Your task to perform on an android device: Open accessibility settings Image 0: 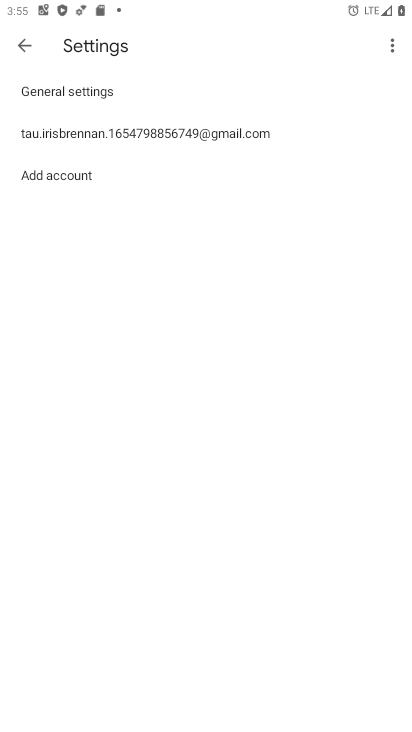
Step 0: press home button
Your task to perform on an android device: Open accessibility settings Image 1: 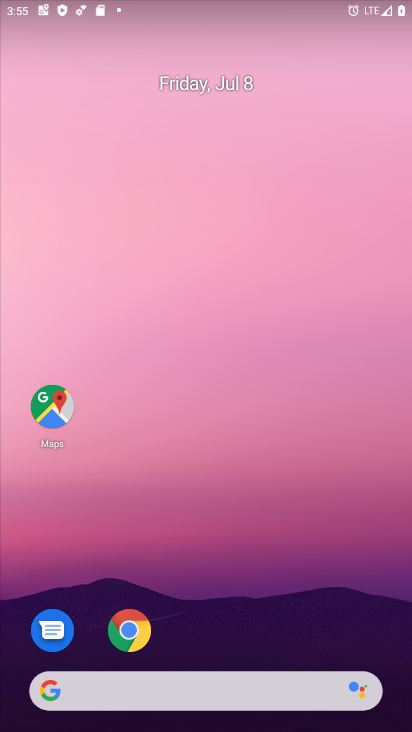
Step 1: drag from (207, 657) to (242, 334)
Your task to perform on an android device: Open accessibility settings Image 2: 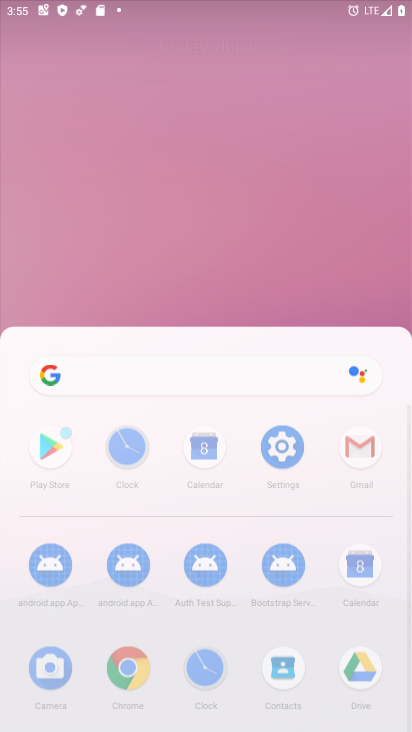
Step 2: drag from (249, 301) to (260, 121)
Your task to perform on an android device: Open accessibility settings Image 3: 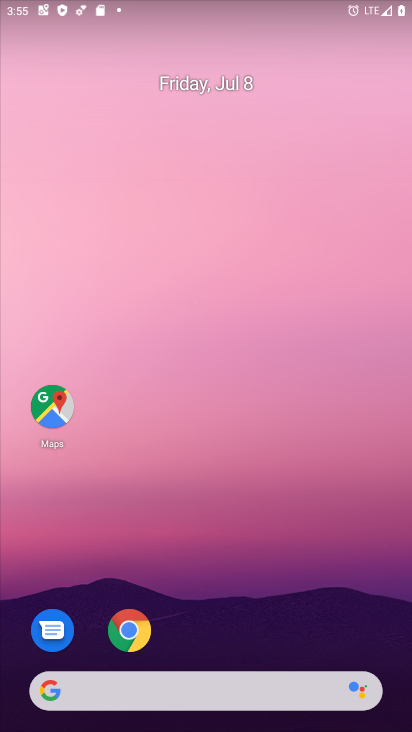
Step 3: drag from (202, 686) to (255, 139)
Your task to perform on an android device: Open accessibility settings Image 4: 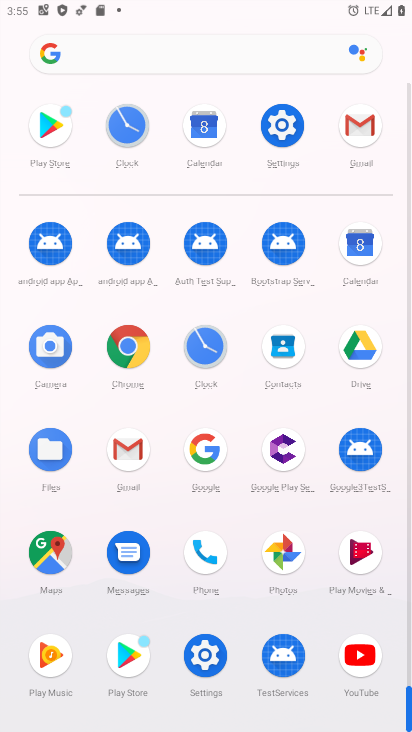
Step 4: click (282, 123)
Your task to perform on an android device: Open accessibility settings Image 5: 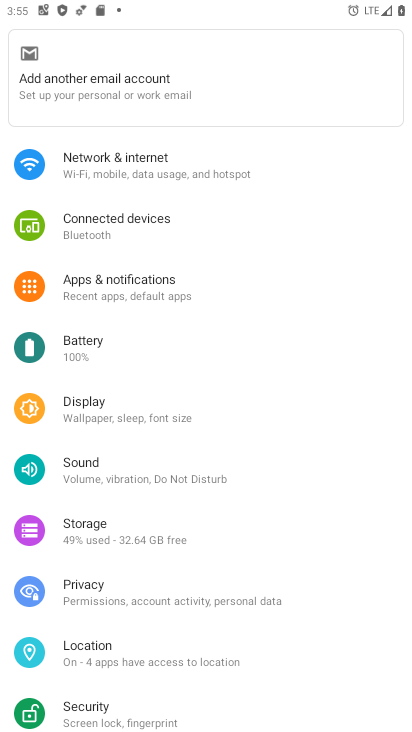
Step 5: drag from (147, 575) to (301, 353)
Your task to perform on an android device: Open accessibility settings Image 6: 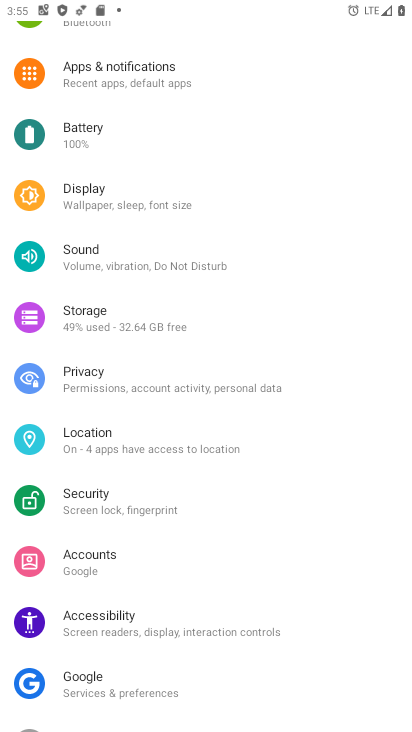
Step 6: click (119, 609)
Your task to perform on an android device: Open accessibility settings Image 7: 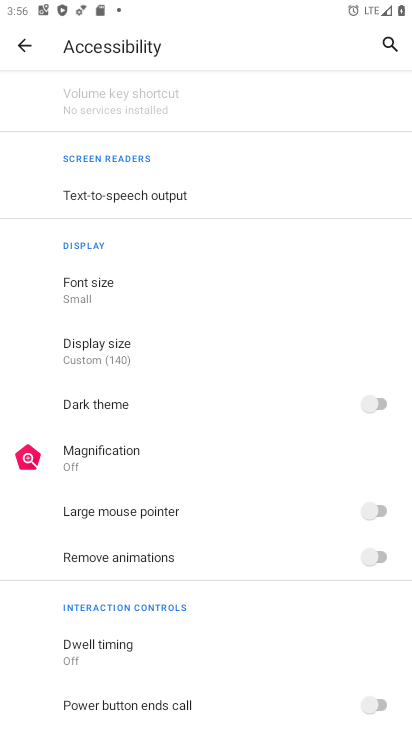
Step 7: task complete